Your task to perform on an android device: Check the weather Image 0: 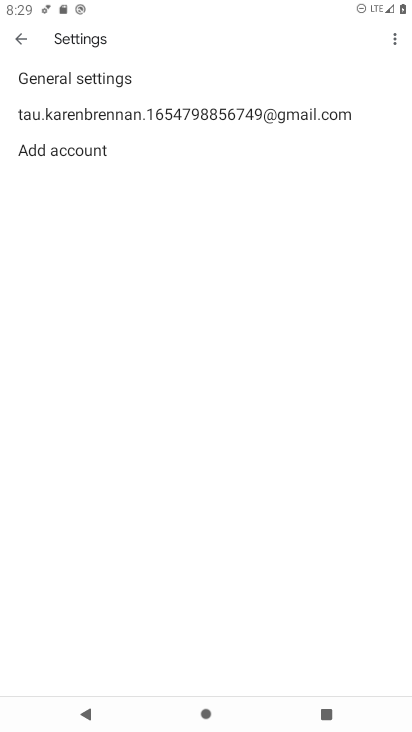
Step 0: press home button
Your task to perform on an android device: Check the weather Image 1: 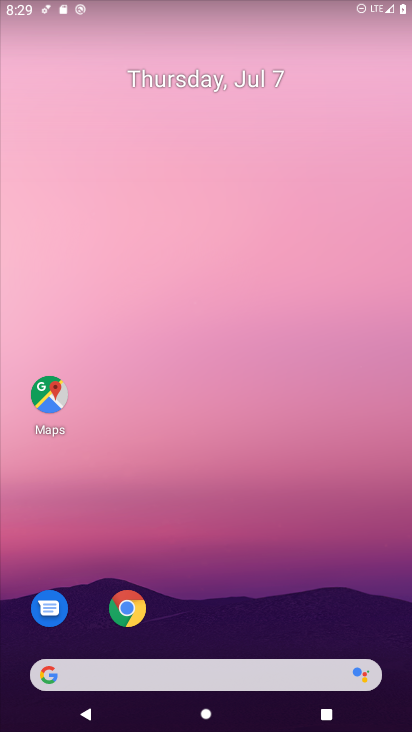
Step 1: drag from (5, 304) to (370, 318)
Your task to perform on an android device: Check the weather Image 2: 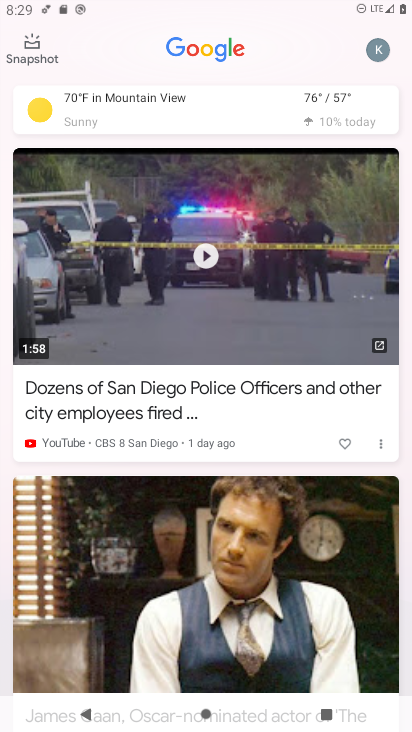
Step 2: click (130, 103)
Your task to perform on an android device: Check the weather Image 3: 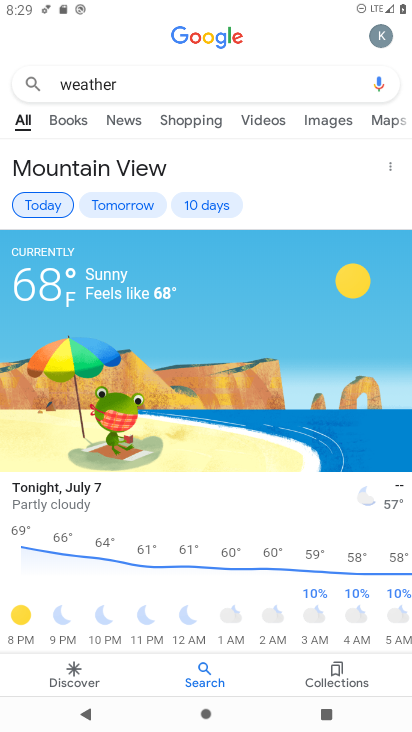
Step 3: task complete